Your task to perform on an android device: turn on location history Image 0: 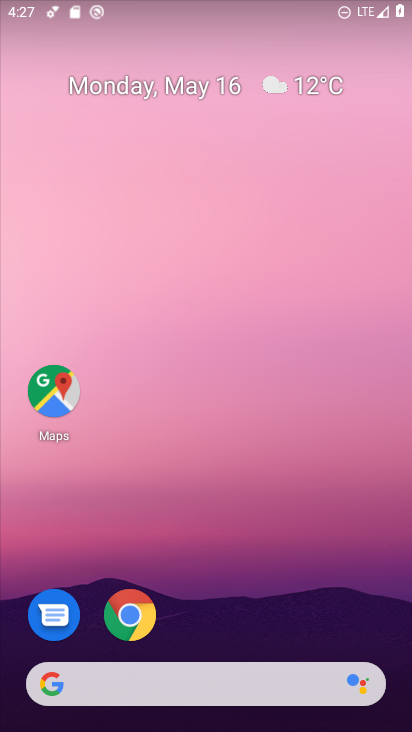
Step 0: drag from (207, 719) to (215, 146)
Your task to perform on an android device: turn on location history Image 1: 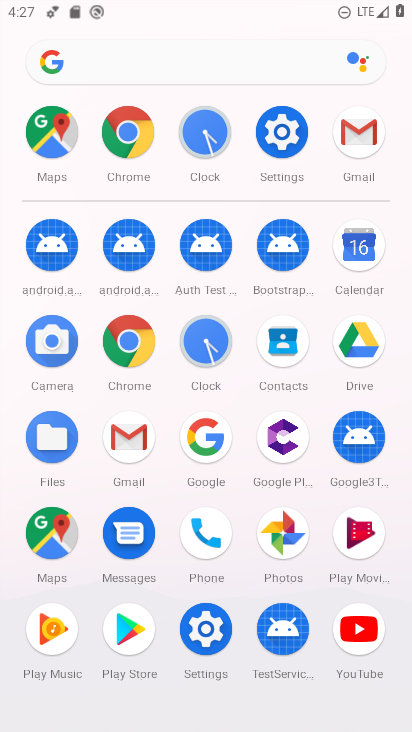
Step 1: click (277, 139)
Your task to perform on an android device: turn on location history Image 2: 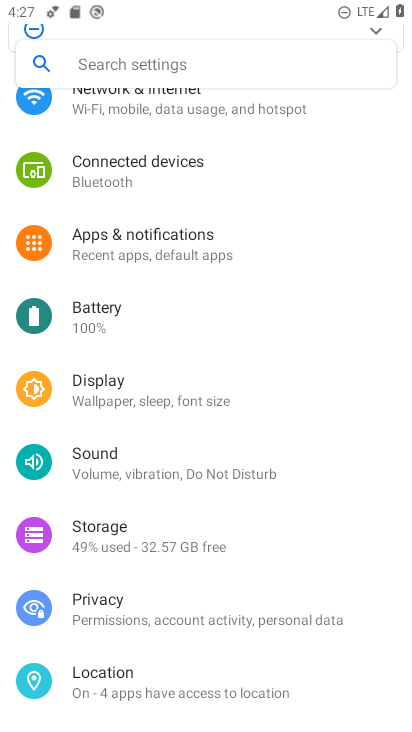
Step 2: click (104, 672)
Your task to perform on an android device: turn on location history Image 3: 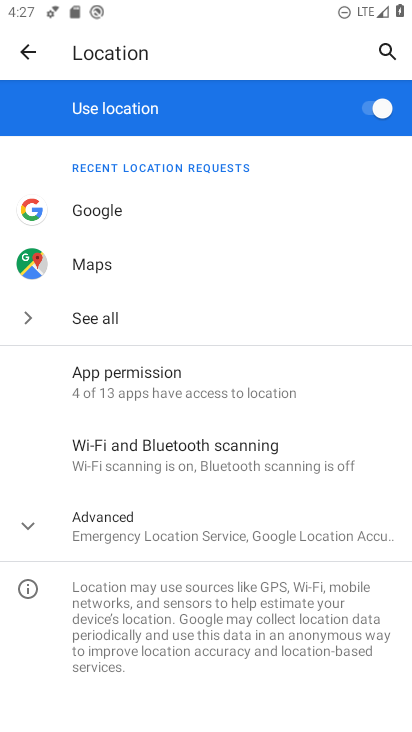
Step 3: click (108, 525)
Your task to perform on an android device: turn on location history Image 4: 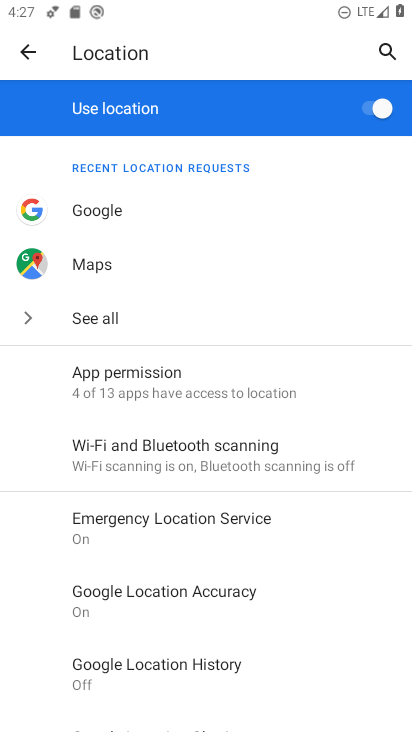
Step 4: click (121, 665)
Your task to perform on an android device: turn on location history Image 5: 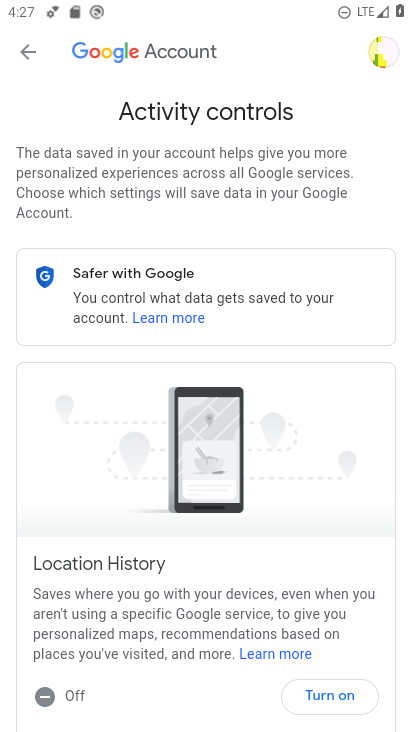
Step 5: click (328, 695)
Your task to perform on an android device: turn on location history Image 6: 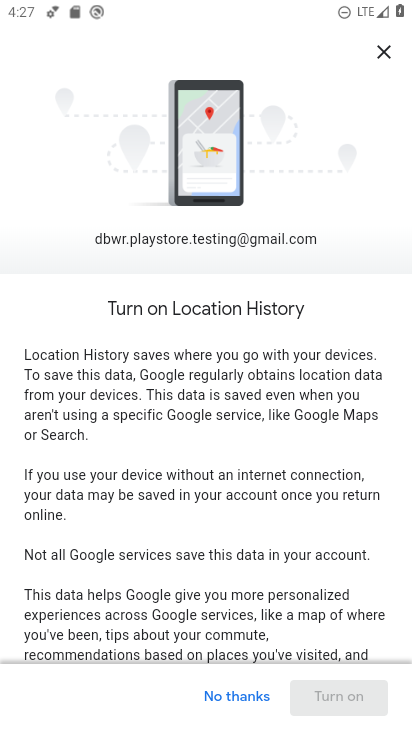
Step 6: drag from (238, 638) to (239, 394)
Your task to perform on an android device: turn on location history Image 7: 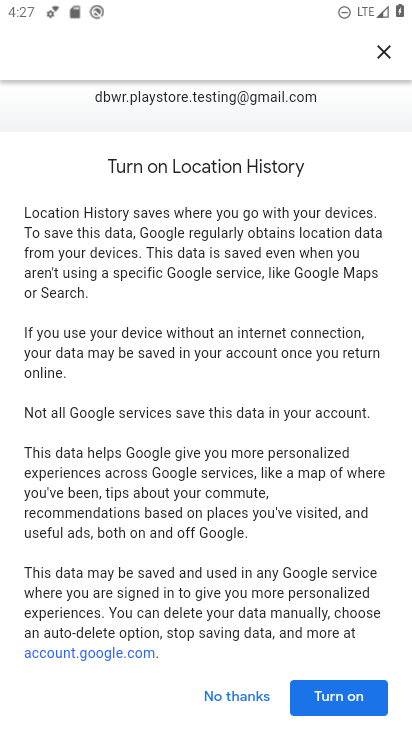
Step 7: drag from (234, 611) to (236, 447)
Your task to perform on an android device: turn on location history Image 8: 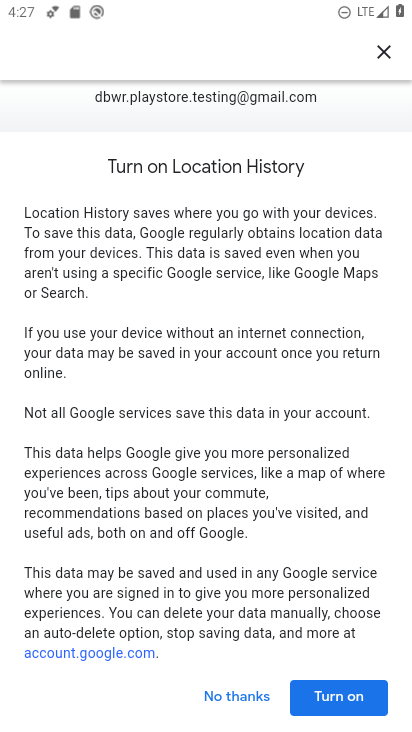
Step 8: click (338, 701)
Your task to perform on an android device: turn on location history Image 9: 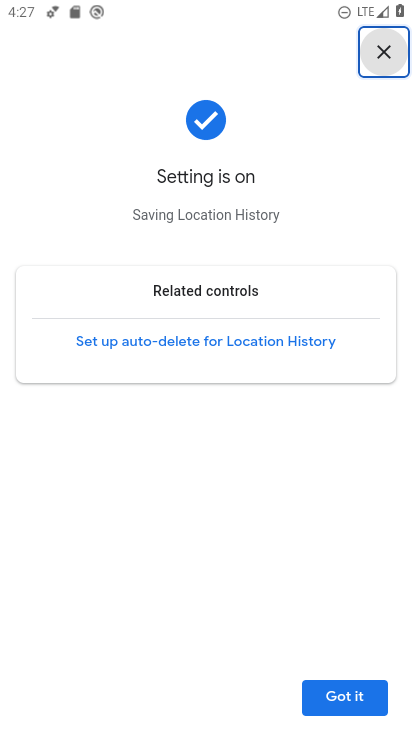
Step 9: click (340, 698)
Your task to perform on an android device: turn on location history Image 10: 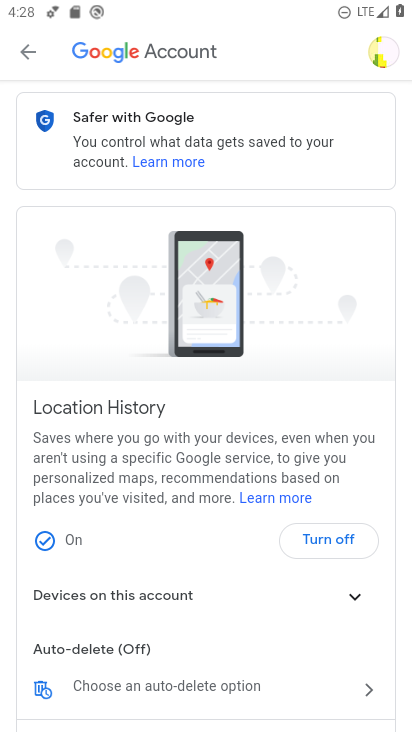
Step 10: task complete